Your task to perform on an android device: turn notification dots on Image 0: 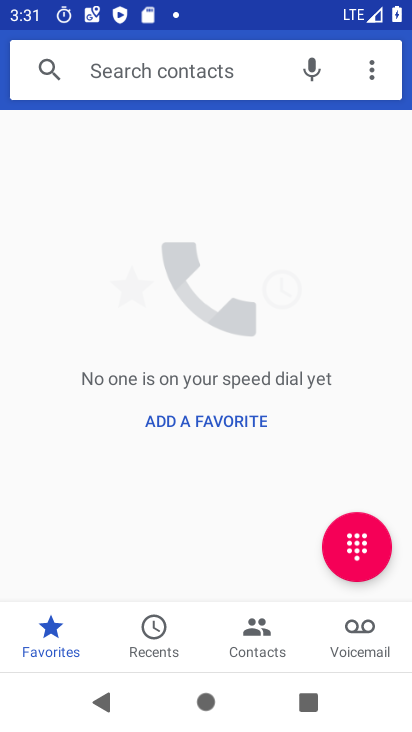
Step 0: press home button
Your task to perform on an android device: turn notification dots on Image 1: 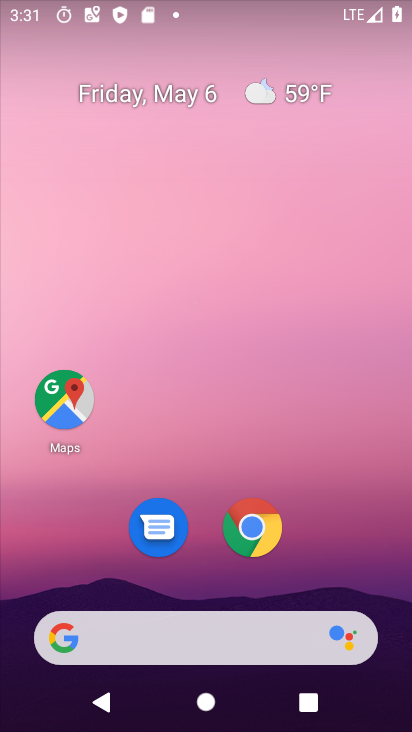
Step 1: drag from (280, 475) to (226, 146)
Your task to perform on an android device: turn notification dots on Image 2: 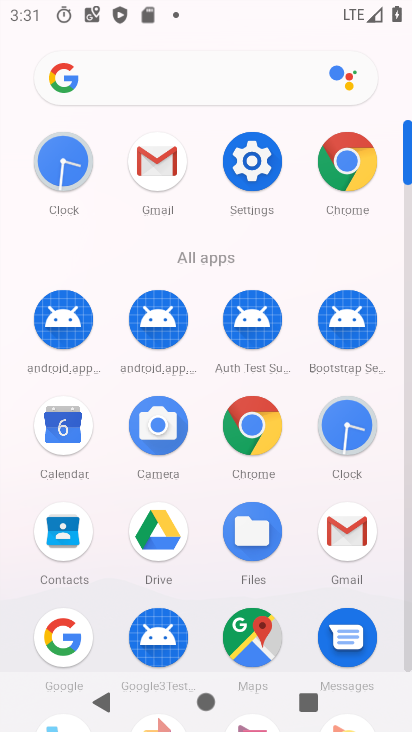
Step 2: click (256, 205)
Your task to perform on an android device: turn notification dots on Image 3: 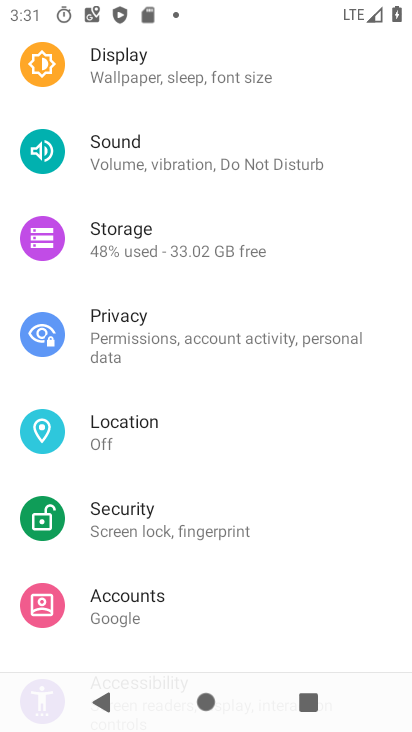
Step 3: drag from (119, 155) to (160, 552)
Your task to perform on an android device: turn notification dots on Image 4: 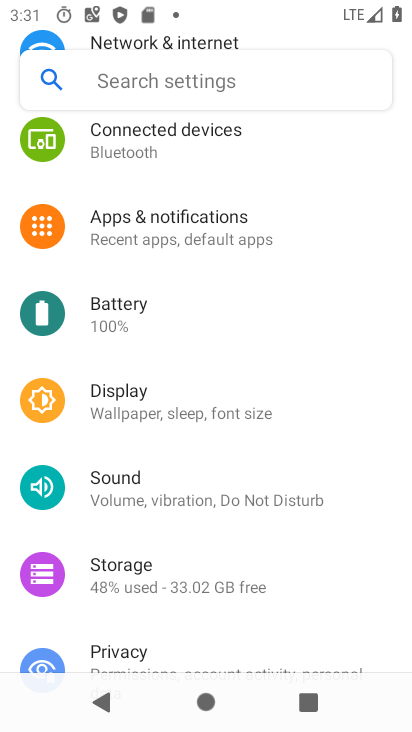
Step 4: click (198, 257)
Your task to perform on an android device: turn notification dots on Image 5: 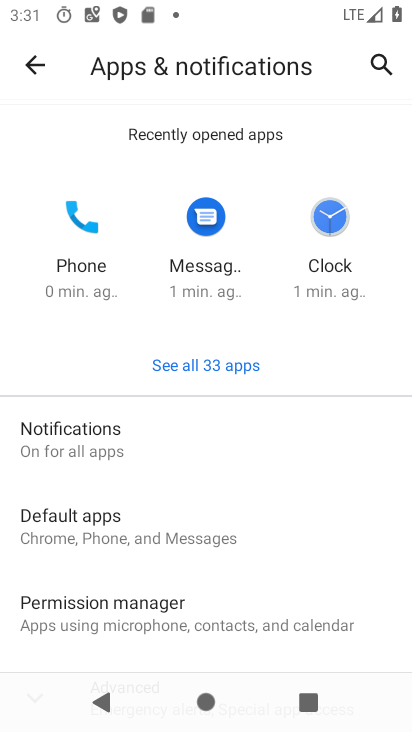
Step 5: click (86, 446)
Your task to perform on an android device: turn notification dots on Image 6: 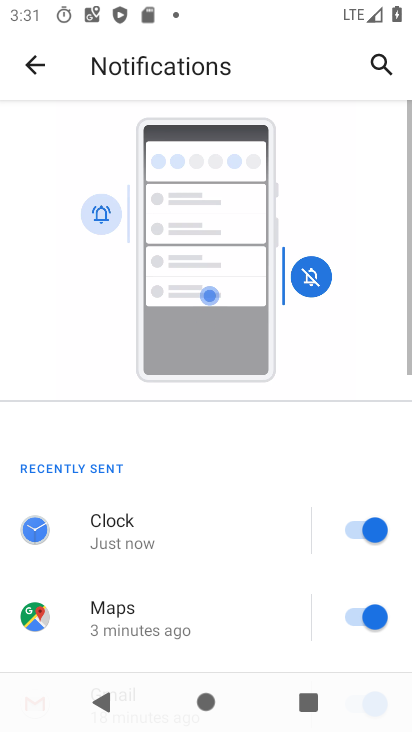
Step 6: drag from (221, 591) to (264, 184)
Your task to perform on an android device: turn notification dots on Image 7: 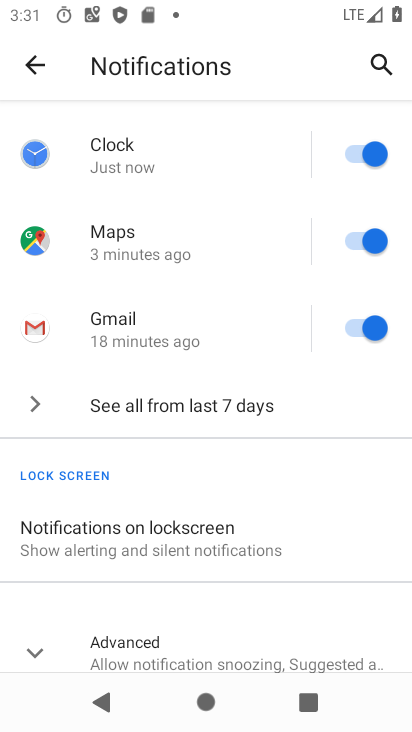
Step 7: drag from (219, 596) to (210, 276)
Your task to perform on an android device: turn notification dots on Image 8: 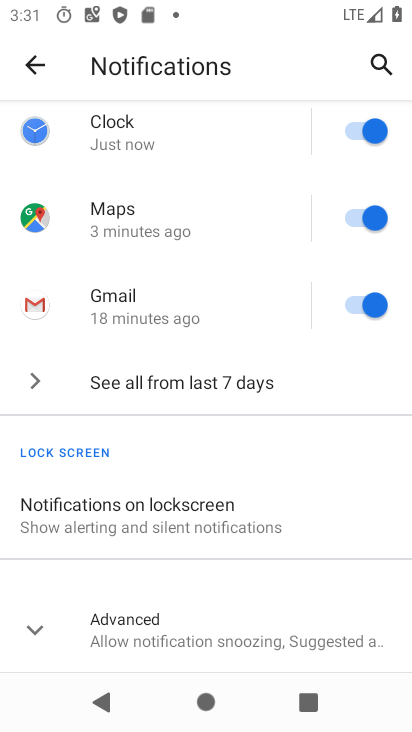
Step 8: click (117, 617)
Your task to perform on an android device: turn notification dots on Image 9: 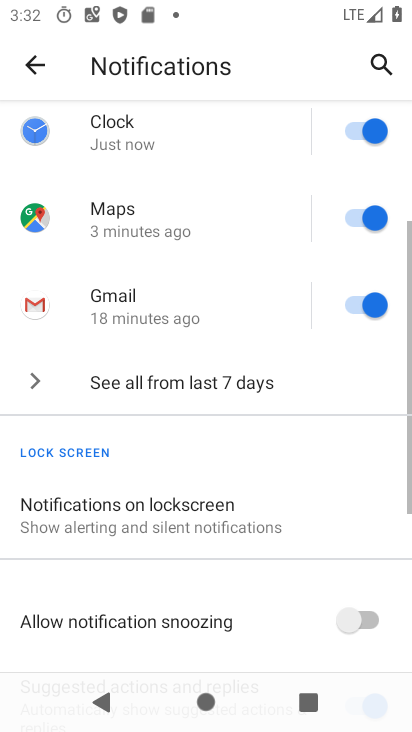
Step 9: task complete